Your task to perform on an android device: change the clock display to digital Image 0: 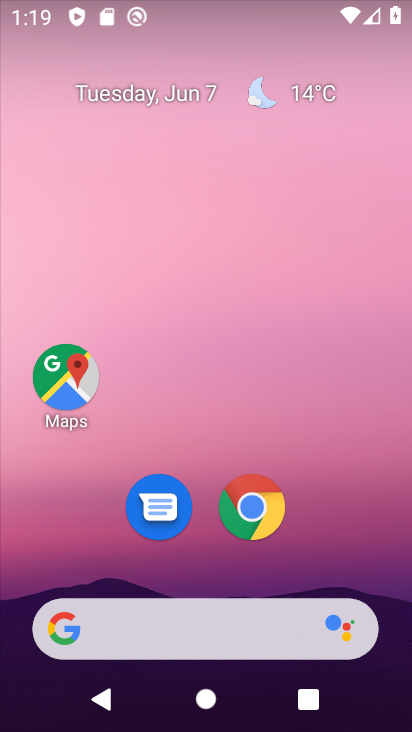
Step 0: drag from (85, 609) to (224, 110)
Your task to perform on an android device: change the clock display to digital Image 1: 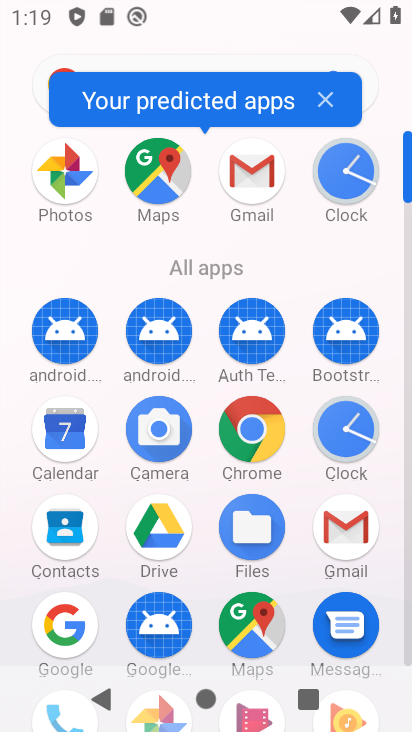
Step 1: click (369, 435)
Your task to perform on an android device: change the clock display to digital Image 2: 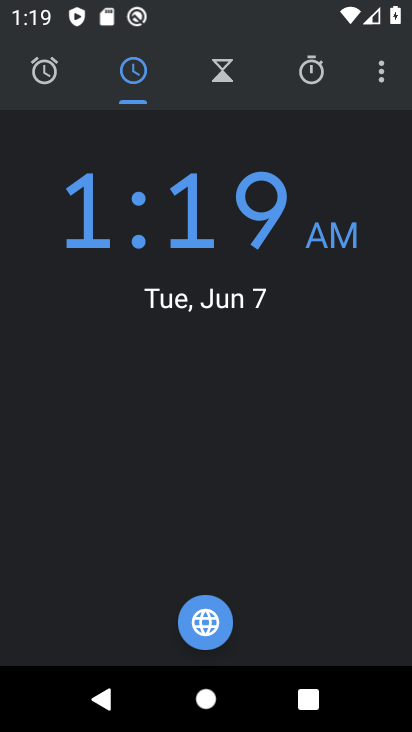
Step 2: click (387, 69)
Your task to perform on an android device: change the clock display to digital Image 3: 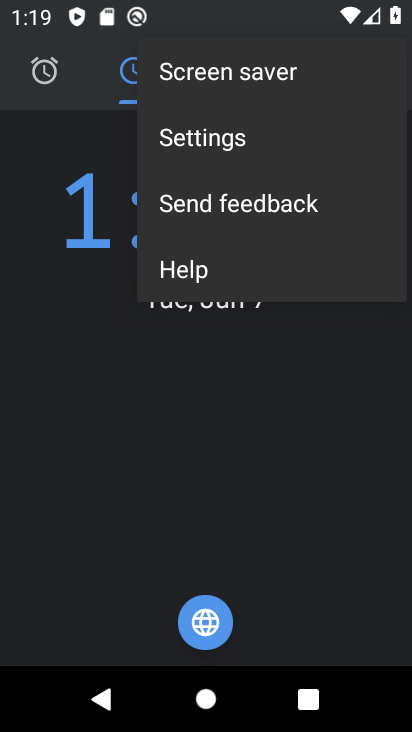
Step 3: click (356, 138)
Your task to perform on an android device: change the clock display to digital Image 4: 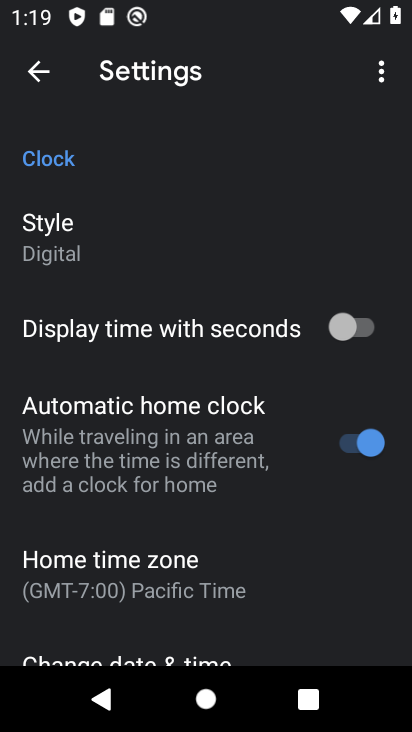
Step 4: task complete